Your task to perform on an android device: Open maps Image 0: 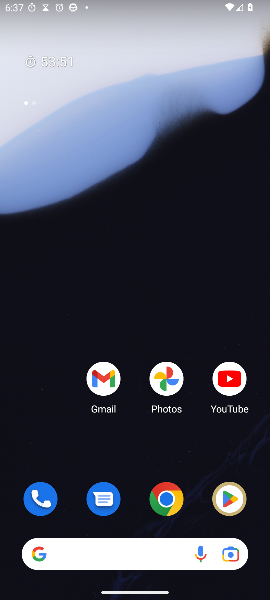
Step 0: drag from (59, 496) to (146, 103)
Your task to perform on an android device: Open maps Image 1: 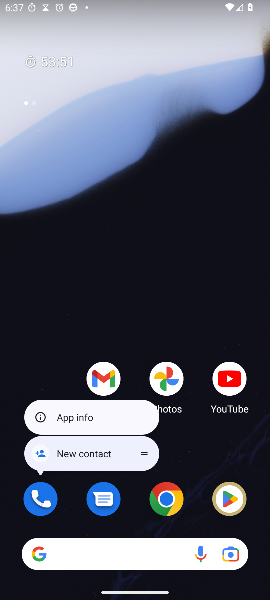
Step 1: click (8, 285)
Your task to perform on an android device: Open maps Image 2: 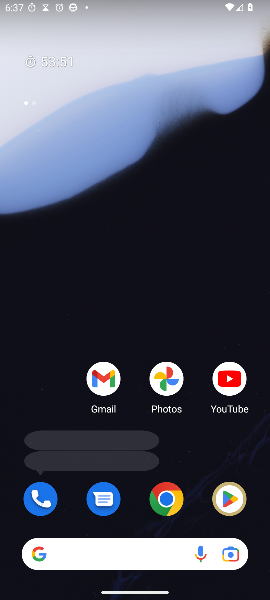
Step 2: click (36, 297)
Your task to perform on an android device: Open maps Image 3: 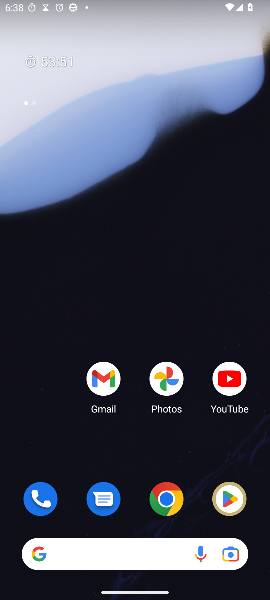
Step 3: drag from (57, 439) to (89, 82)
Your task to perform on an android device: Open maps Image 4: 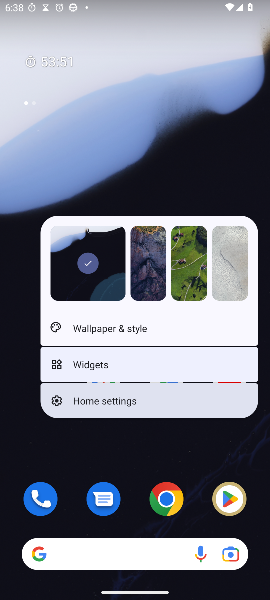
Step 4: click (48, 174)
Your task to perform on an android device: Open maps Image 5: 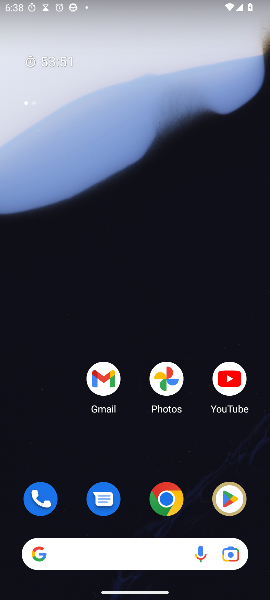
Step 5: drag from (66, 518) to (164, 54)
Your task to perform on an android device: Open maps Image 6: 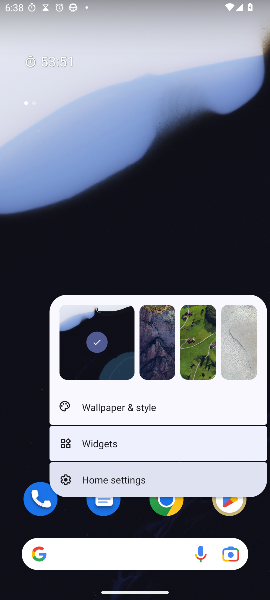
Step 6: click (90, 197)
Your task to perform on an android device: Open maps Image 7: 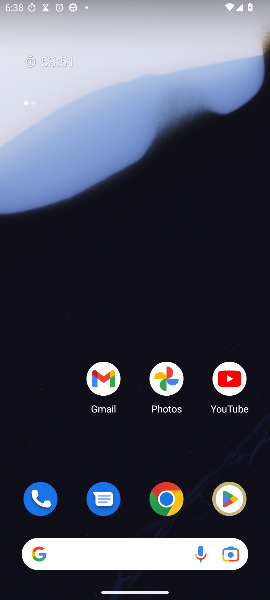
Step 7: drag from (49, 545) to (133, 2)
Your task to perform on an android device: Open maps Image 8: 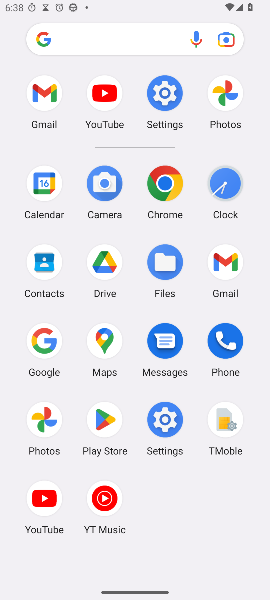
Step 8: click (104, 352)
Your task to perform on an android device: Open maps Image 9: 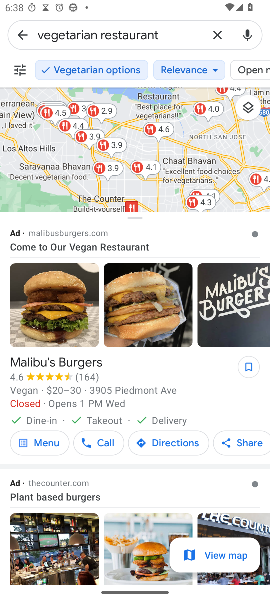
Step 9: task complete